Your task to perform on an android device: Set the phone to "Do not disturb". Image 0: 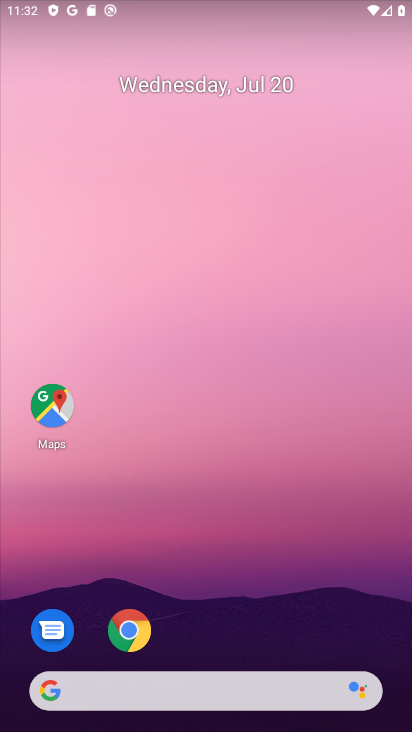
Step 0: drag from (216, 621) to (225, 92)
Your task to perform on an android device: Set the phone to "Do not disturb". Image 1: 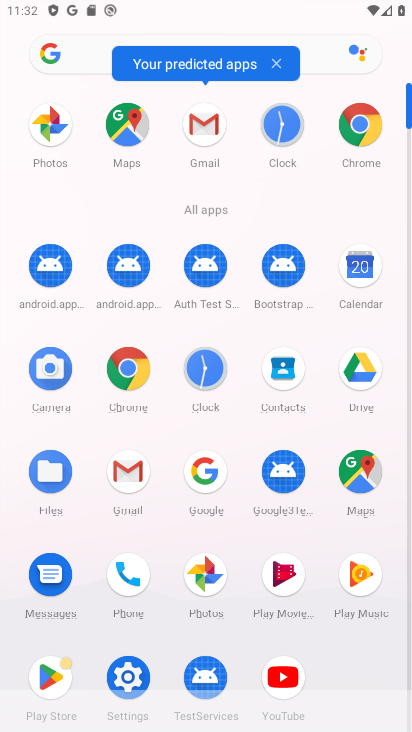
Step 1: click (122, 672)
Your task to perform on an android device: Set the phone to "Do not disturb". Image 2: 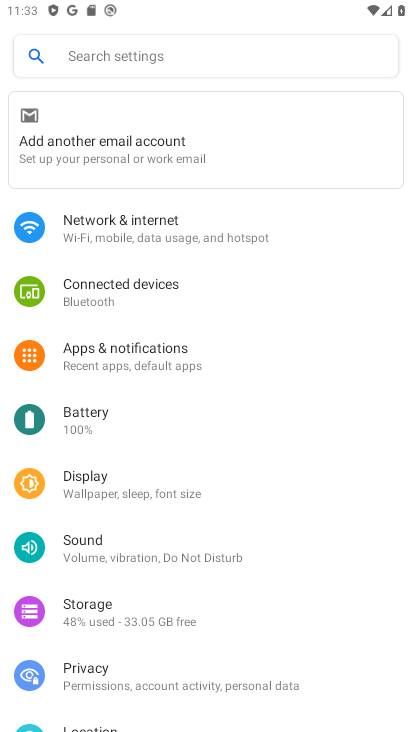
Step 2: drag from (144, 558) to (169, 400)
Your task to perform on an android device: Set the phone to "Do not disturb". Image 3: 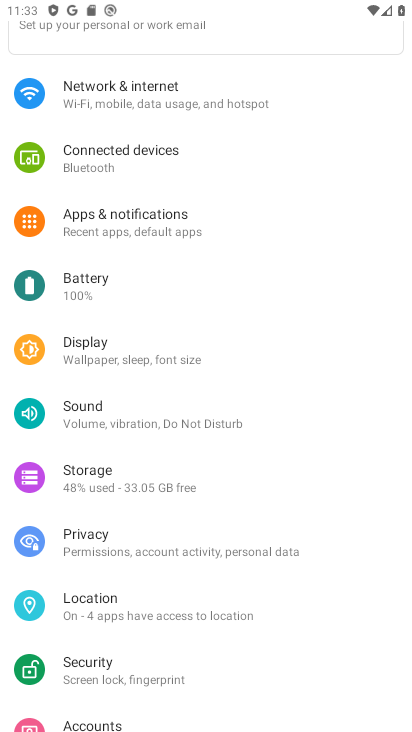
Step 3: click (118, 414)
Your task to perform on an android device: Set the phone to "Do not disturb". Image 4: 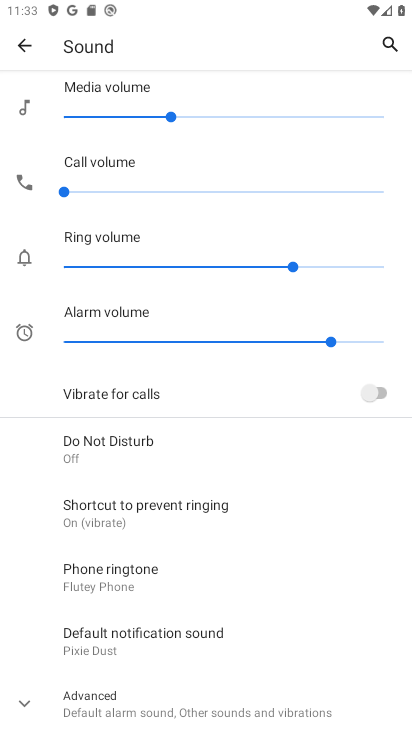
Step 4: click (97, 448)
Your task to perform on an android device: Set the phone to "Do not disturb". Image 5: 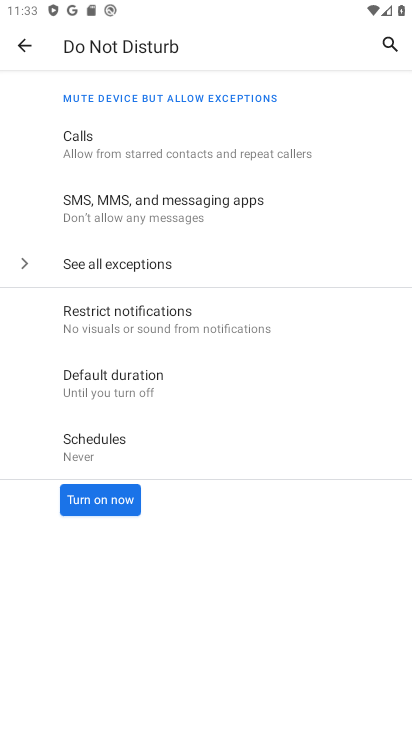
Step 5: click (102, 498)
Your task to perform on an android device: Set the phone to "Do not disturb". Image 6: 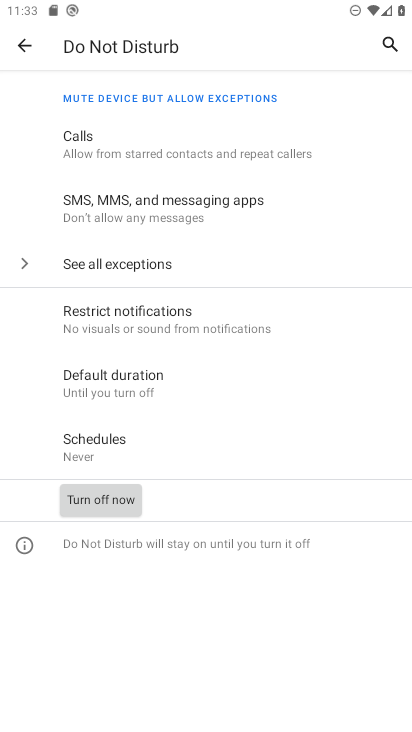
Step 6: task complete